Your task to perform on an android device: change the clock display to digital Image 0: 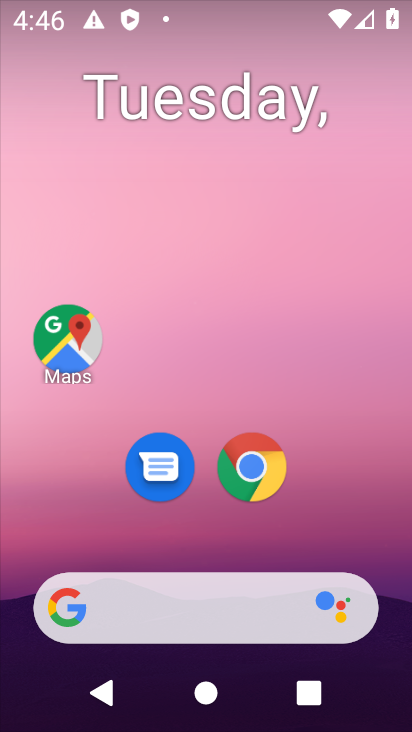
Step 0: drag from (215, 594) to (143, 19)
Your task to perform on an android device: change the clock display to digital Image 1: 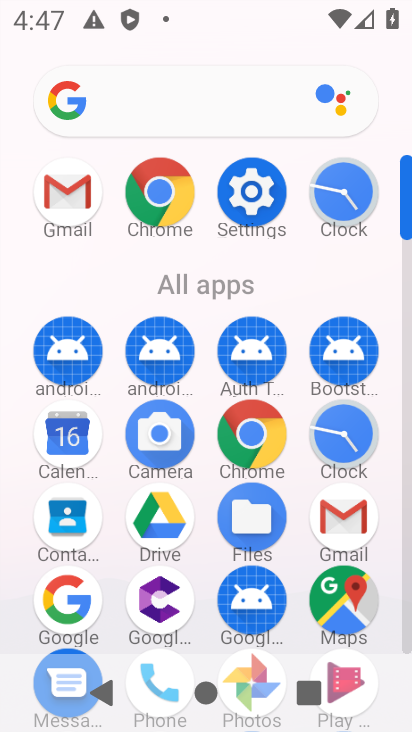
Step 1: click (349, 197)
Your task to perform on an android device: change the clock display to digital Image 2: 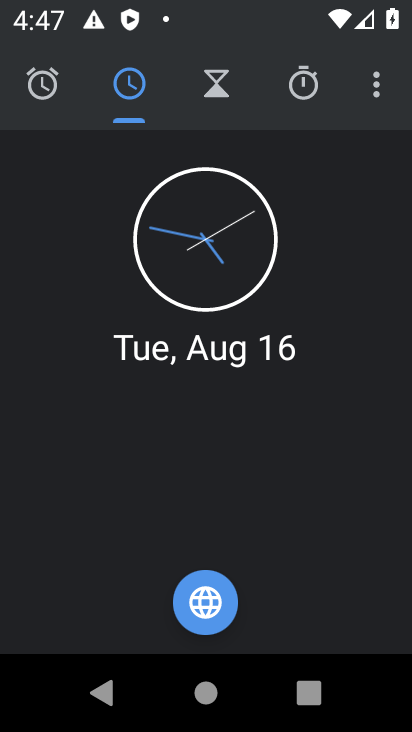
Step 2: click (375, 93)
Your task to perform on an android device: change the clock display to digital Image 3: 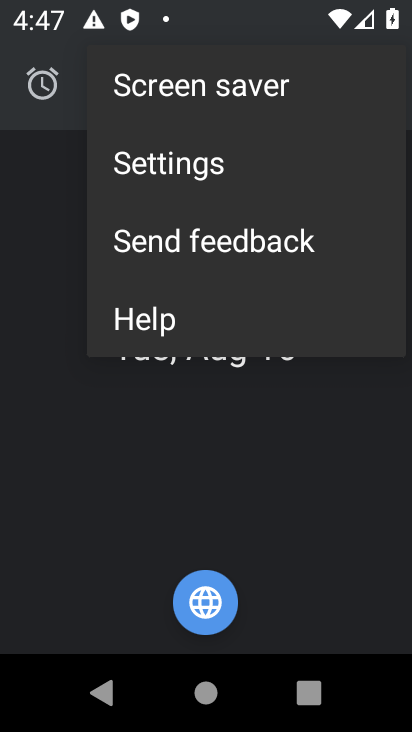
Step 3: click (179, 167)
Your task to perform on an android device: change the clock display to digital Image 4: 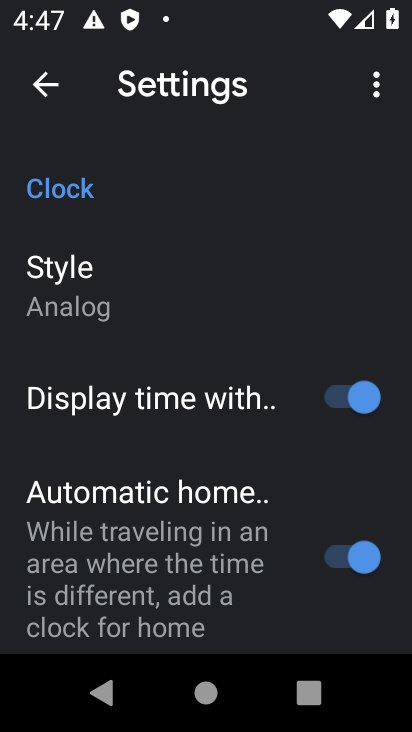
Step 4: click (95, 288)
Your task to perform on an android device: change the clock display to digital Image 5: 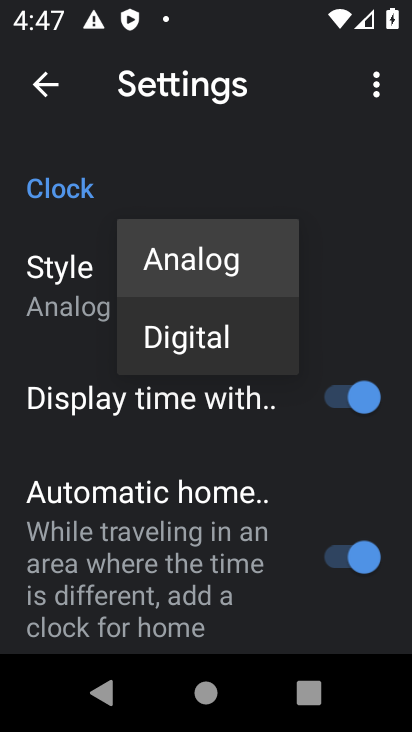
Step 5: click (203, 339)
Your task to perform on an android device: change the clock display to digital Image 6: 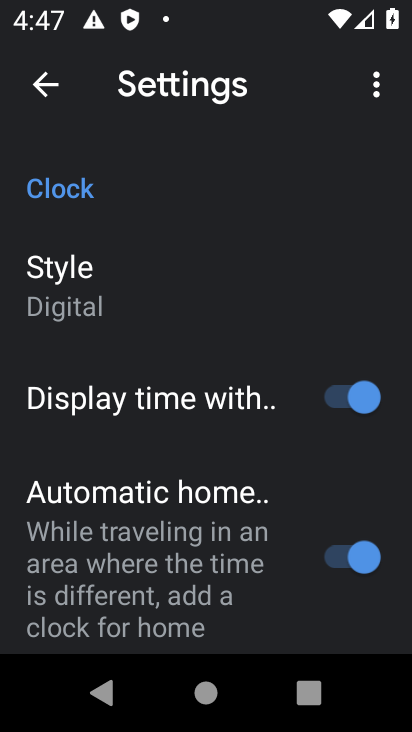
Step 6: task complete